Your task to perform on an android device: What's on my calendar tomorrow? Image 0: 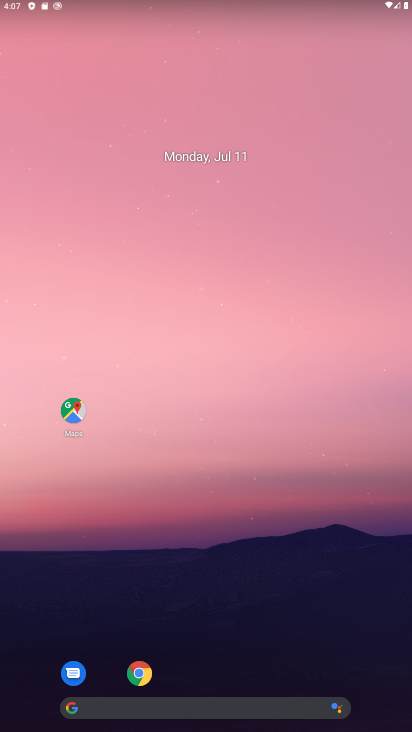
Step 0: drag from (203, 649) to (226, 191)
Your task to perform on an android device: What's on my calendar tomorrow? Image 1: 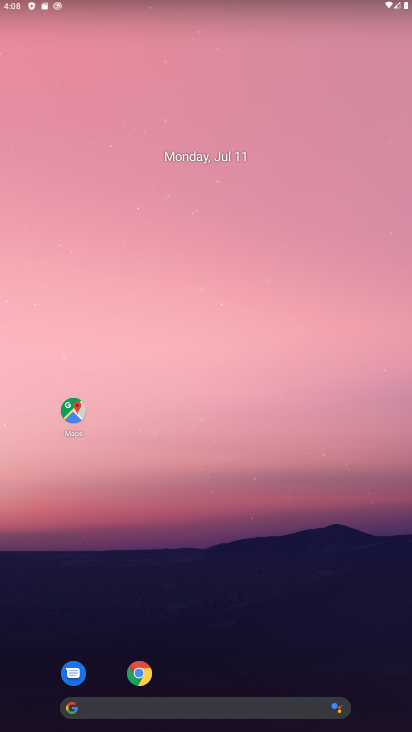
Step 1: drag from (225, 704) to (241, 65)
Your task to perform on an android device: What's on my calendar tomorrow? Image 2: 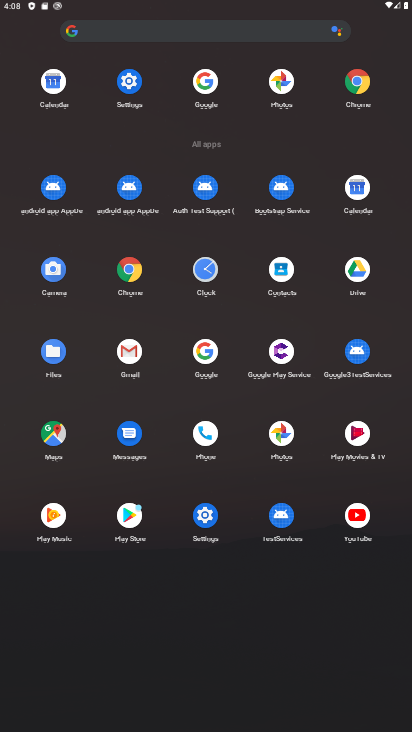
Step 2: click (357, 191)
Your task to perform on an android device: What's on my calendar tomorrow? Image 3: 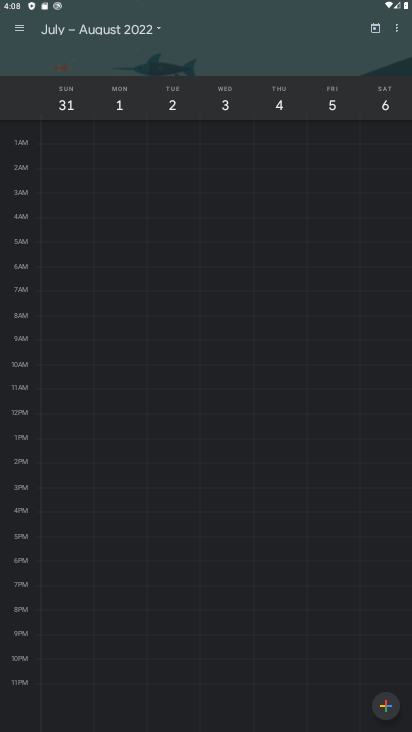
Step 3: click (376, 32)
Your task to perform on an android device: What's on my calendar tomorrow? Image 4: 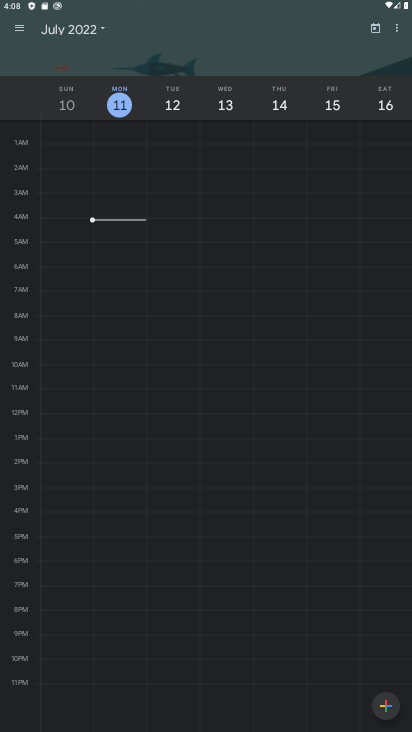
Step 4: click (104, 35)
Your task to perform on an android device: What's on my calendar tomorrow? Image 5: 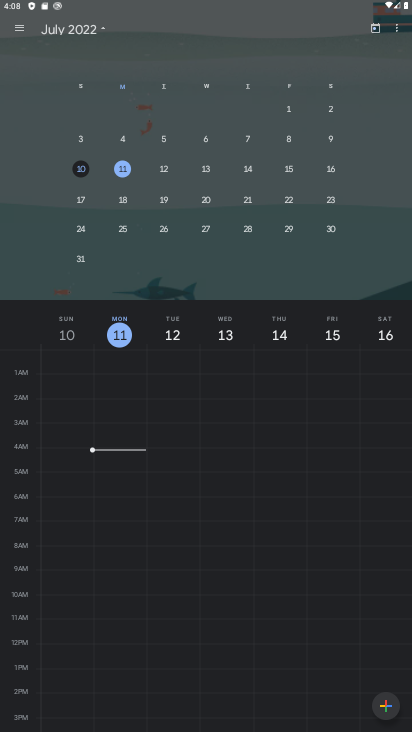
Step 5: click (167, 169)
Your task to perform on an android device: What's on my calendar tomorrow? Image 6: 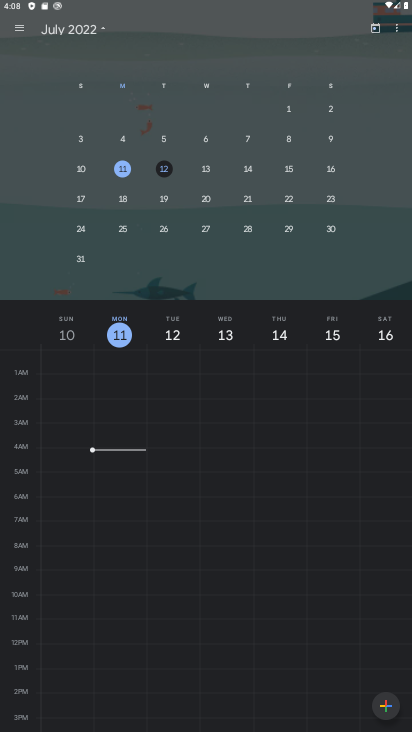
Step 6: click (24, 29)
Your task to perform on an android device: What's on my calendar tomorrow? Image 7: 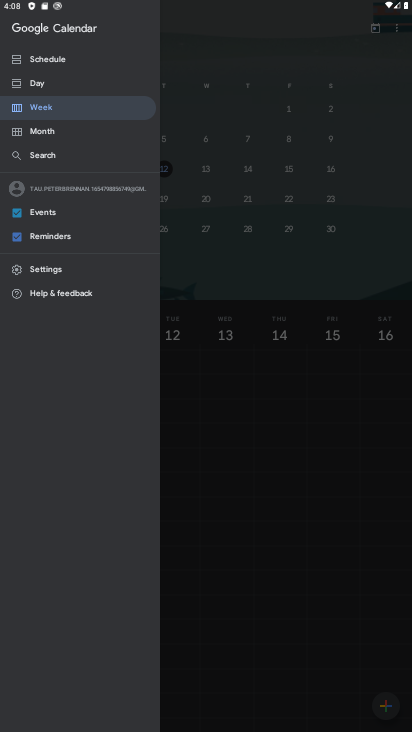
Step 7: click (52, 60)
Your task to perform on an android device: What's on my calendar tomorrow? Image 8: 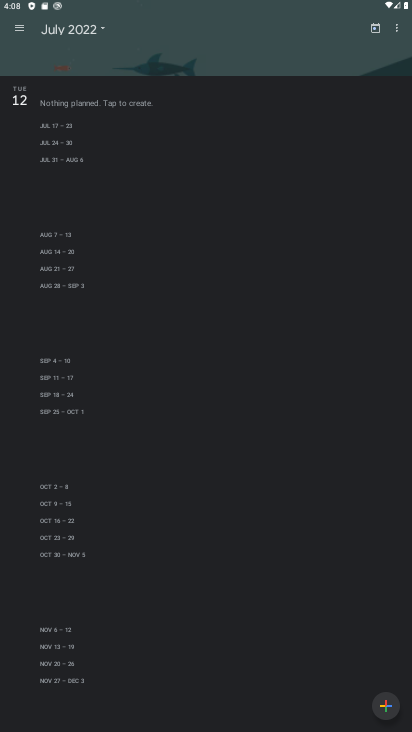
Step 8: task complete